Your task to perform on an android device: Open Chrome and go to settings Image 0: 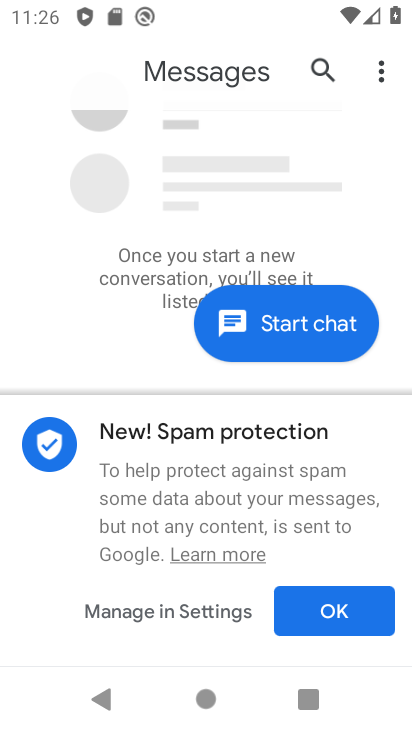
Step 0: press home button
Your task to perform on an android device: Open Chrome and go to settings Image 1: 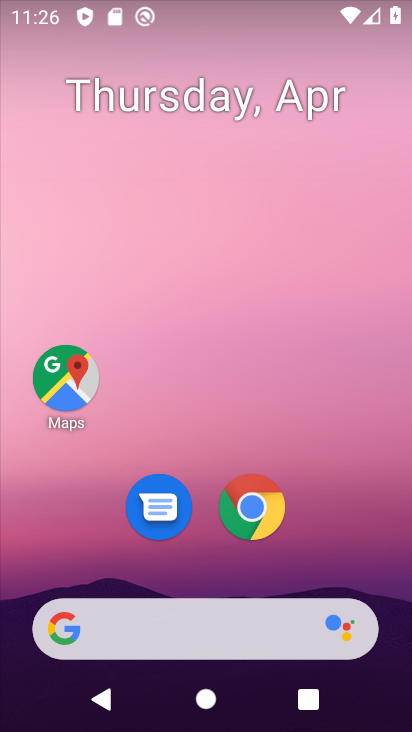
Step 1: click (250, 507)
Your task to perform on an android device: Open Chrome and go to settings Image 2: 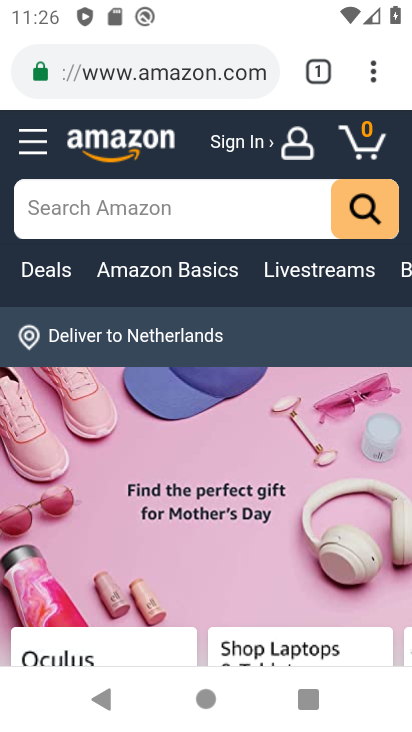
Step 2: task complete